Your task to perform on an android device: delete browsing data in the chrome app Image 0: 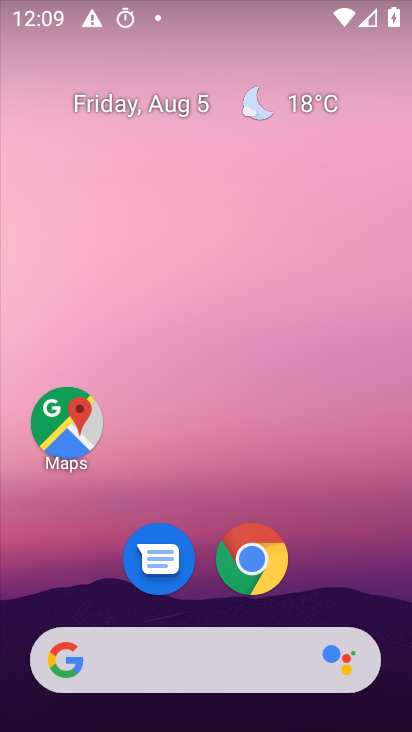
Step 0: click (233, 556)
Your task to perform on an android device: delete browsing data in the chrome app Image 1: 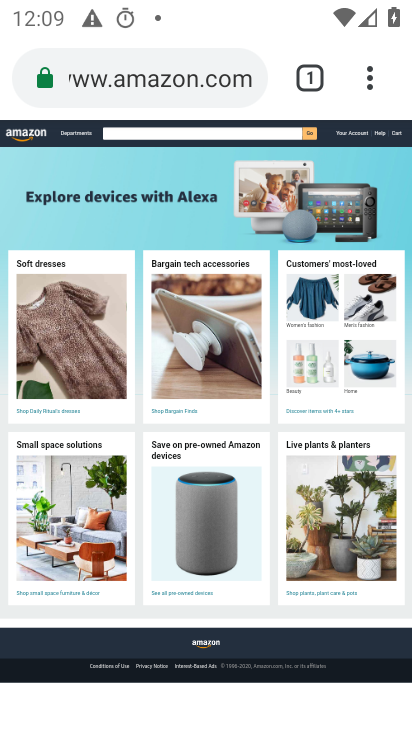
Step 1: click (370, 76)
Your task to perform on an android device: delete browsing data in the chrome app Image 2: 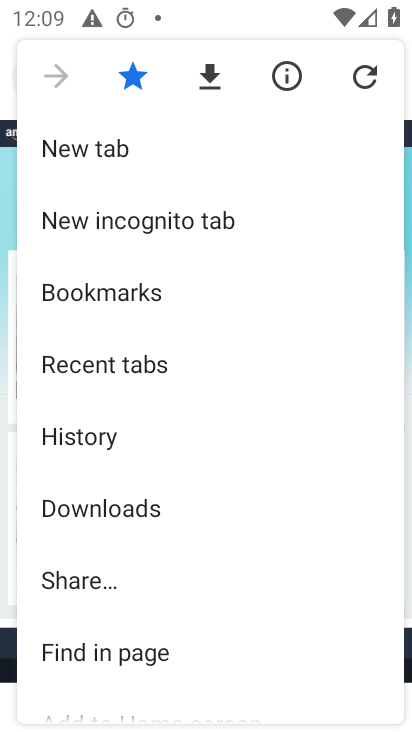
Step 2: click (92, 437)
Your task to perform on an android device: delete browsing data in the chrome app Image 3: 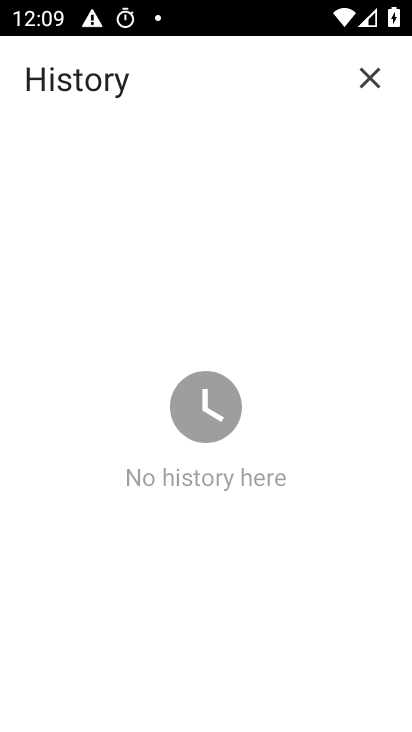
Step 3: task complete